Your task to perform on an android device: Open calendar and show me the second week of next month Image 0: 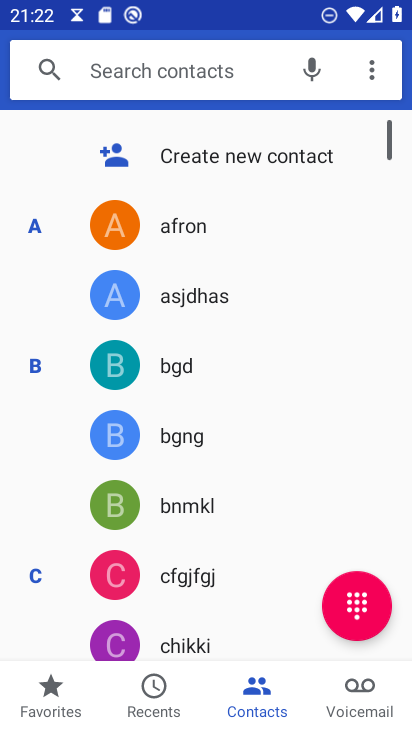
Step 0: press home button
Your task to perform on an android device: Open calendar and show me the second week of next month Image 1: 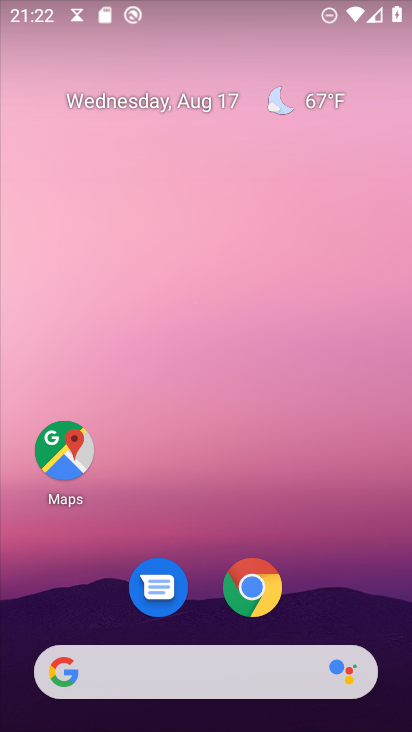
Step 1: drag from (17, 716) to (254, 283)
Your task to perform on an android device: Open calendar and show me the second week of next month Image 2: 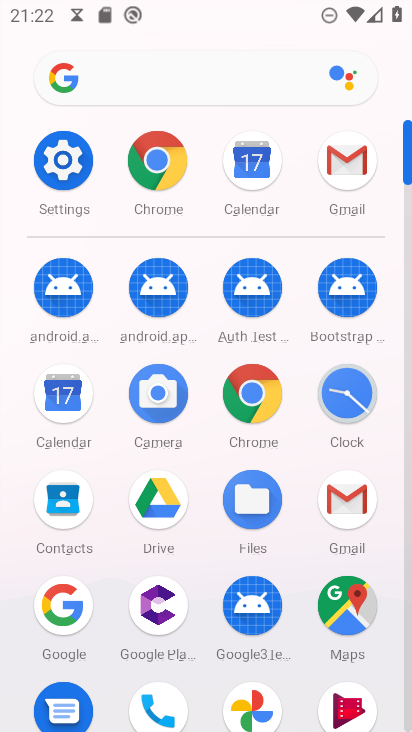
Step 2: click (74, 399)
Your task to perform on an android device: Open calendar and show me the second week of next month Image 3: 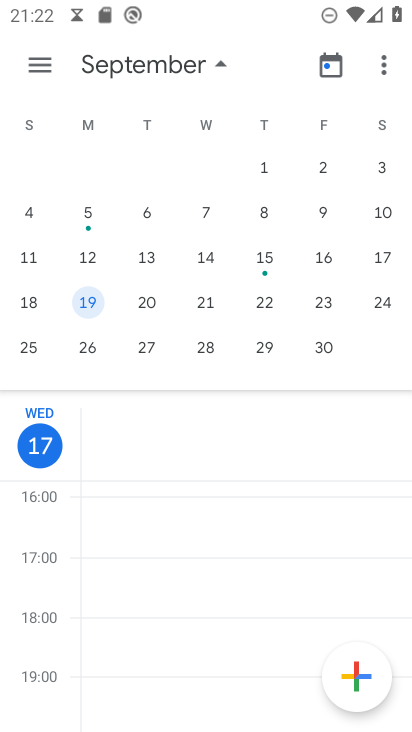
Step 3: click (91, 217)
Your task to perform on an android device: Open calendar and show me the second week of next month Image 4: 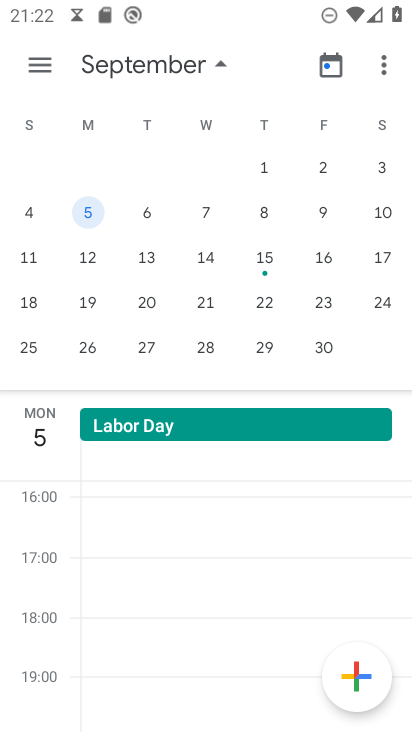
Step 4: task complete